Your task to perform on an android device: toggle show notifications on the lock screen Image 0: 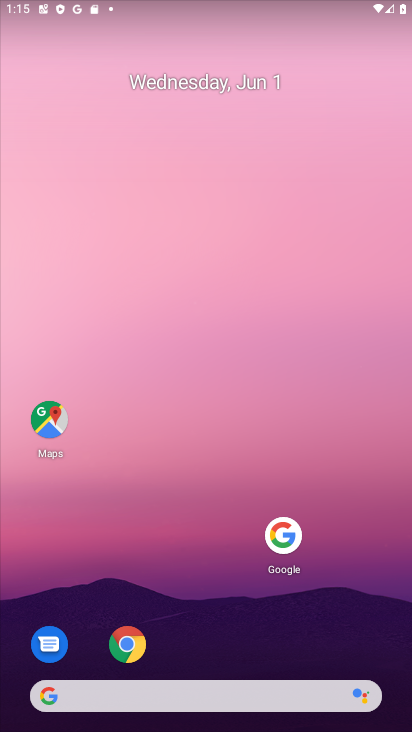
Step 0: drag from (150, 686) to (313, 101)
Your task to perform on an android device: toggle show notifications on the lock screen Image 1: 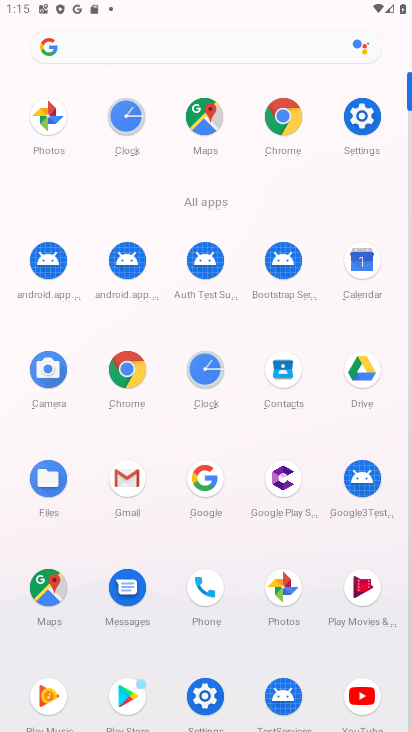
Step 1: click (367, 122)
Your task to perform on an android device: toggle show notifications on the lock screen Image 2: 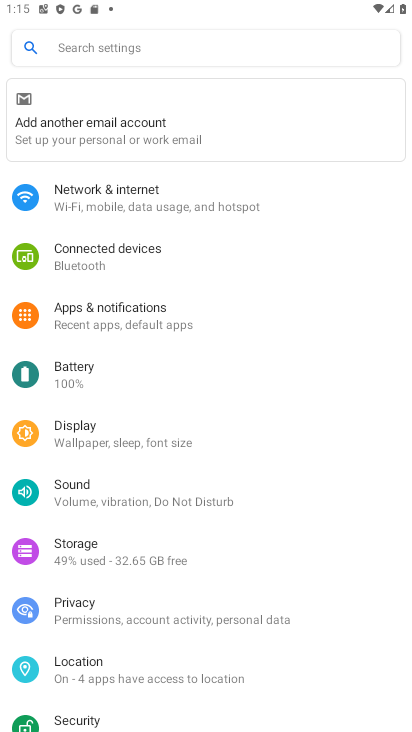
Step 2: click (124, 305)
Your task to perform on an android device: toggle show notifications on the lock screen Image 3: 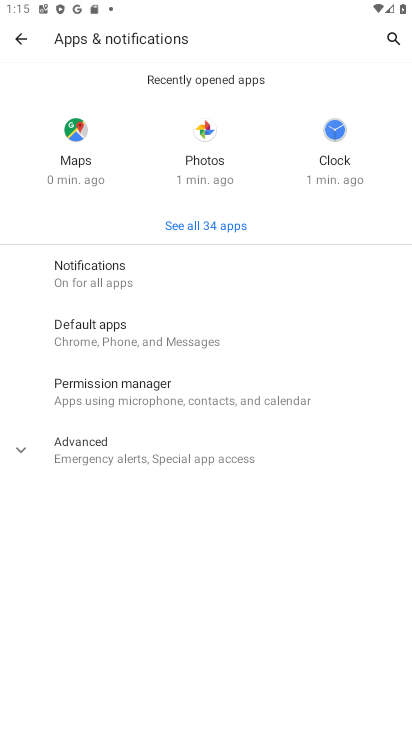
Step 3: click (103, 279)
Your task to perform on an android device: toggle show notifications on the lock screen Image 4: 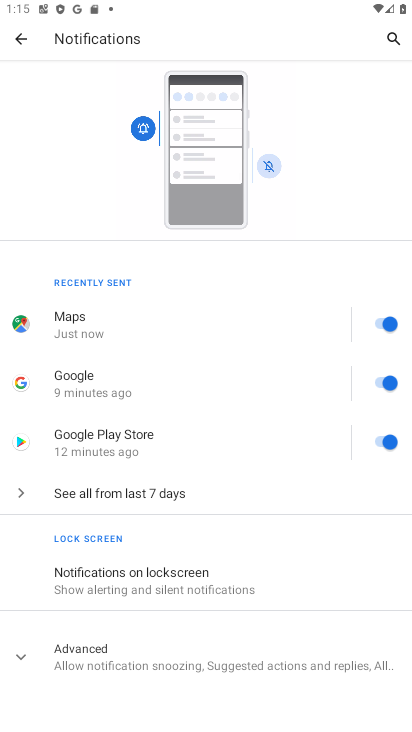
Step 4: click (126, 570)
Your task to perform on an android device: toggle show notifications on the lock screen Image 5: 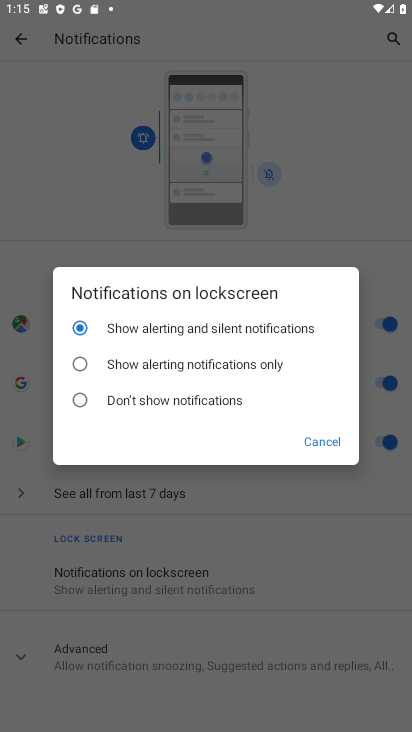
Step 5: click (77, 400)
Your task to perform on an android device: toggle show notifications on the lock screen Image 6: 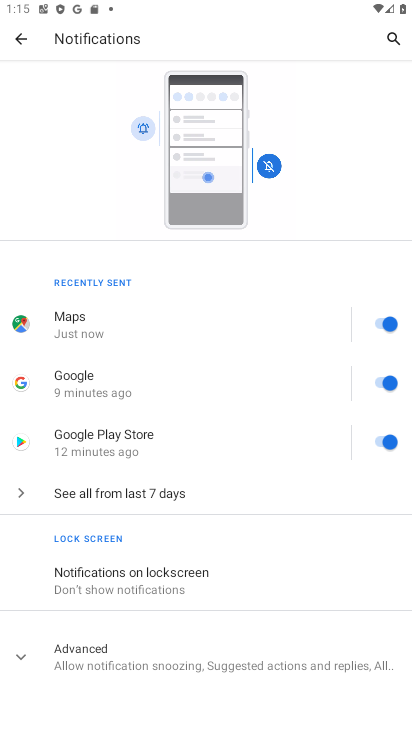
Step 6: task complete